Your task to perform on an android device: When is my next appointment? Image 0: 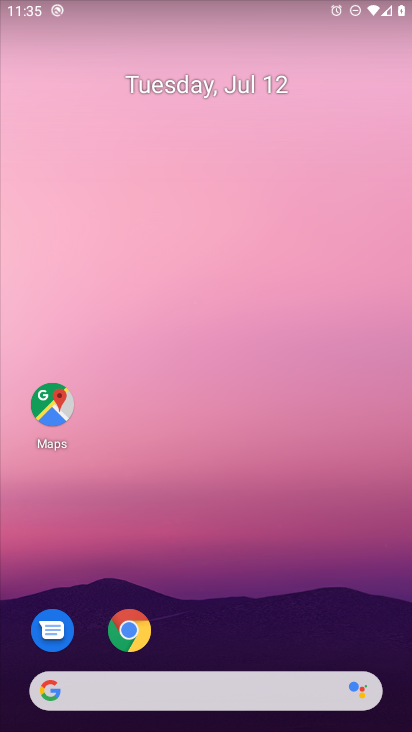
Step 0: press home button
Your task to perform on an android device: When is my next appointment? Image 1: 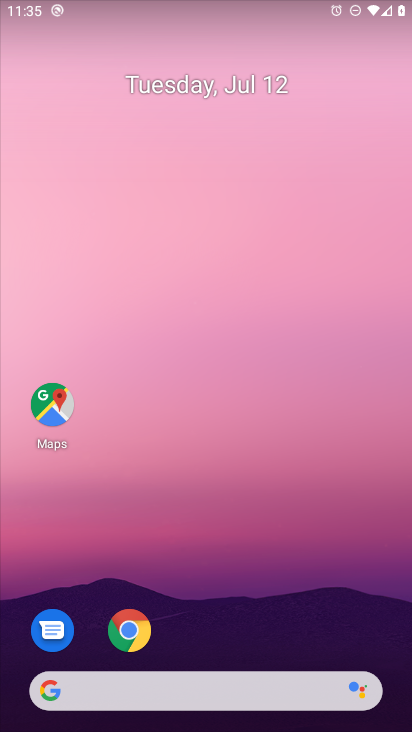
Step 1: drag from (242, 454) to (296, 141)
Your task to perform on an android device: When is my next appointment? Image 2: 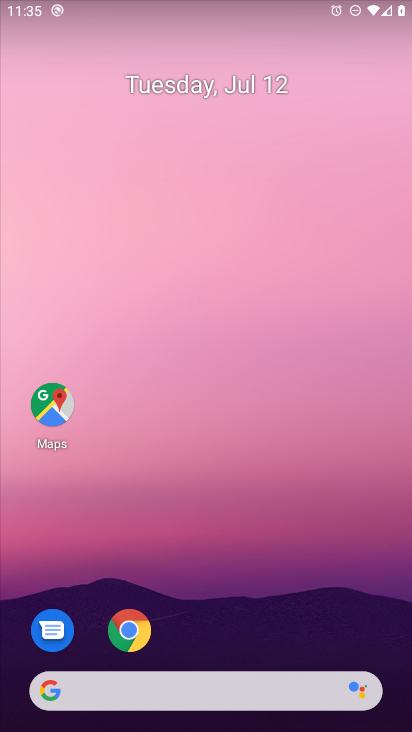
Step 2: drag from (289, 498) to (402, 63)
Your task to perform on an android device: When is my next appointment? Image 3: 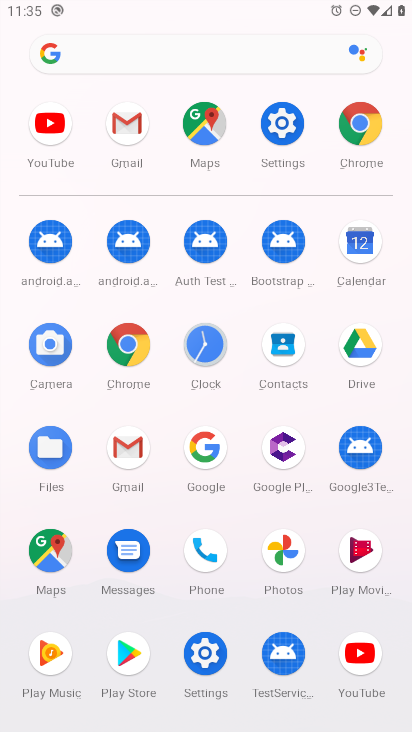
Step 3: click (357, 255)
Your task to perform on an android device: When is my next appointment? Image 4: 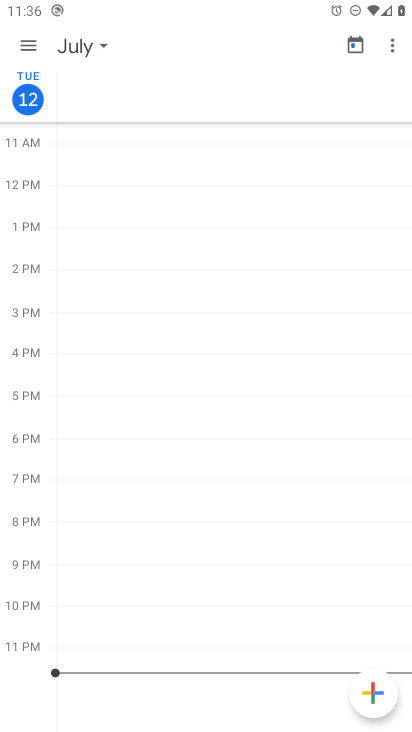
Step 4: click (29, 40)
Your task to perform on an android device: When is my next appointment? Image 5: 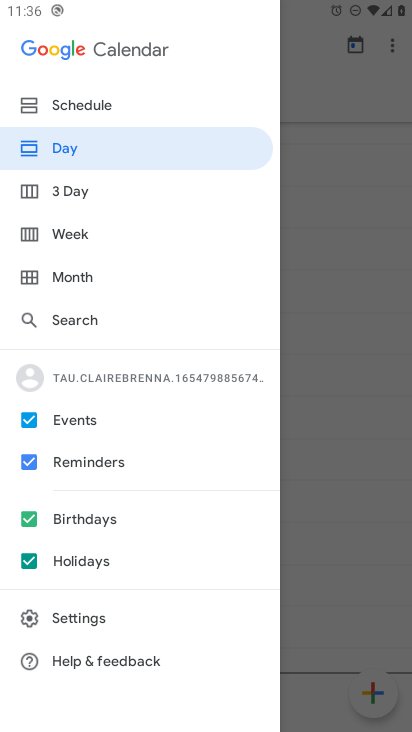
Step 5: click (67, 94)
Your task to perform on an android device: When is my next appointment? Image 6: 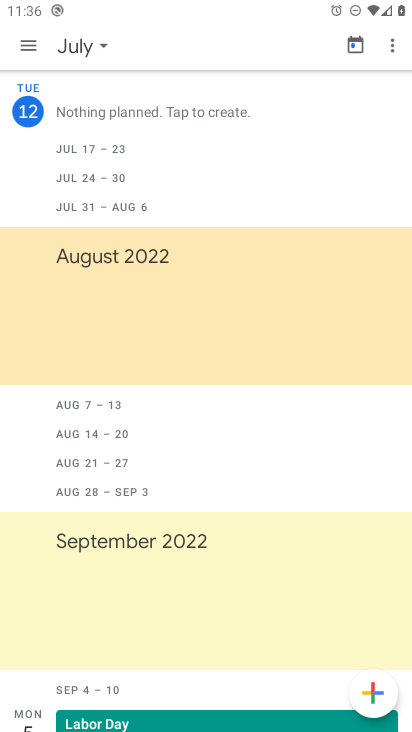
Step 6: task complete